Your task to perform on an android device: see tabs open on other devices in the chrome app Image 0: 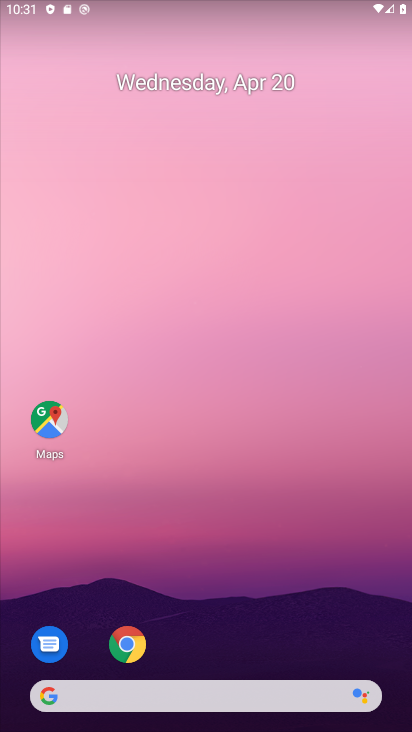
Step 0: drag from (390, 633) to (338, 158)
Your task to perform on an android device: see tabs open on other devices in the chrome app Image 1: 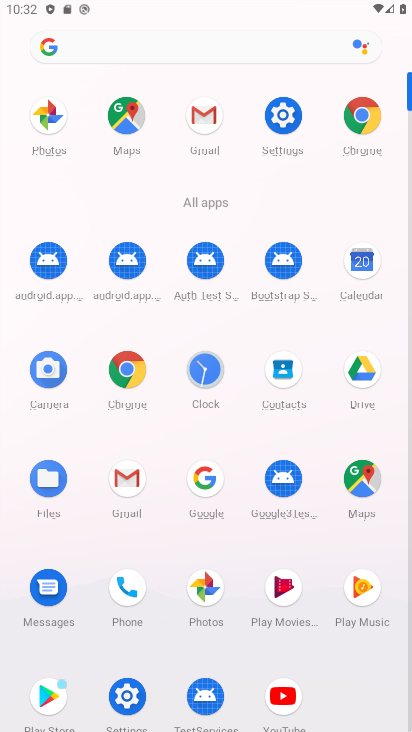
Step 1: click (132, 377)
Your task to perform on an android device: see tabs open on other devices in the chrome app Image 2: 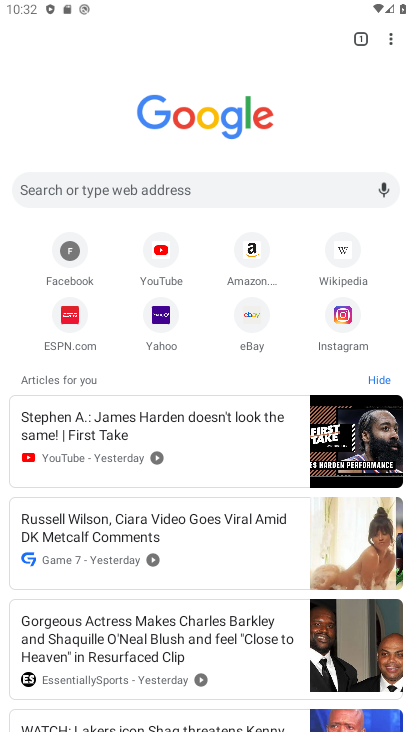
Step 2: click (360, 38)
Your task to perform on an android device: see tabs open on other devices in the chrome app Image 3: 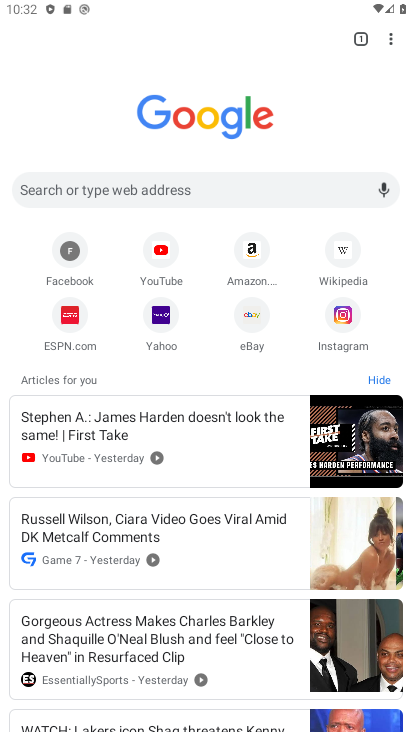
Step 3: task complete